Your task to perform on an android device: uninstall "eBay: The shopping marketplace" Image 0: 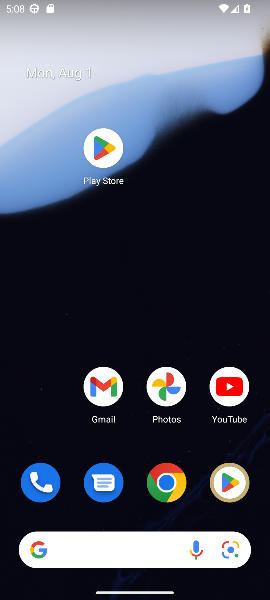
Step 0: press home button
Your task to perform on an android device: uninstall "eBay: The shopping marketplace" Image 1: 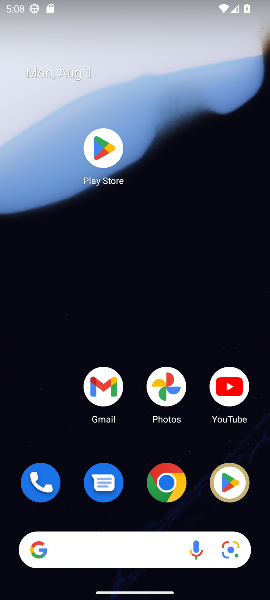
Step 1: click (102, 146)
Your task to perform on an android device: uninstall "eBay: The shopping marketplace" Image 2: 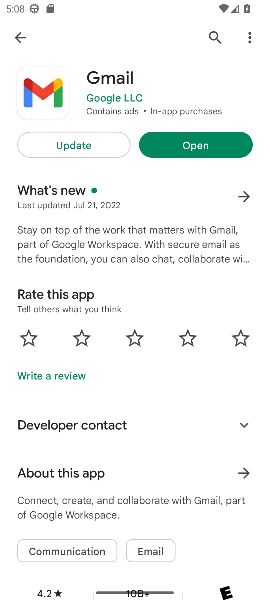
Step 2: click (215, 32)
Your task to perform on an android device: uninstall "eBay: The shopping marketplace" Image 3: 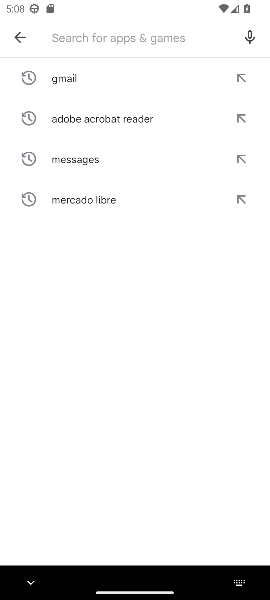
Step 3: type "eBay: The shopping marketplace"
Your task to perform on an android device: uninstall "eBay: The shopping marketplace" Image 4: 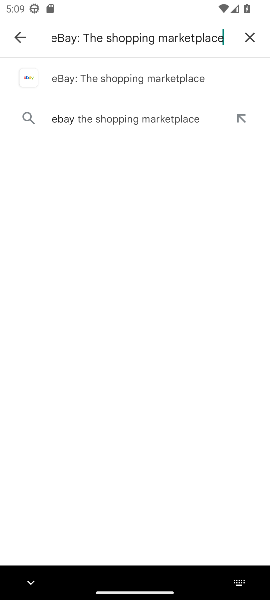
Step 4: click (119, 78)
Your task to perform on an android device: uninstall "eBay: The shopping marketplace" Image 5: 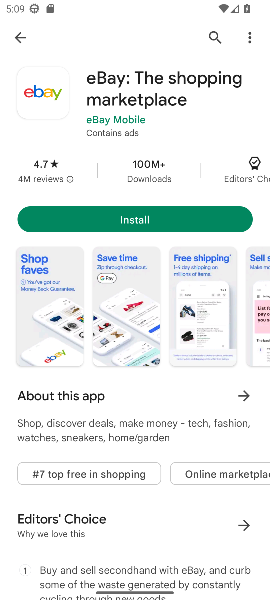
Step 5: task complete